Your task to perform on an android device: add a contact in the contacts app Image 0: 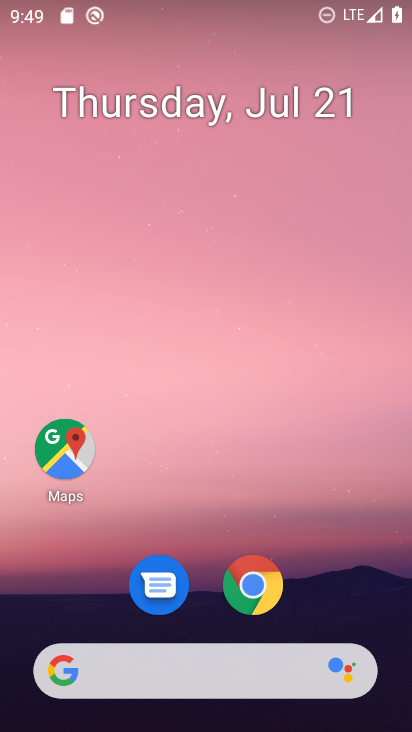
Step 0: drag from (332, 582) to (407, 62)
Your task to perform on an android device: add a contact in the contacts app Image 1: 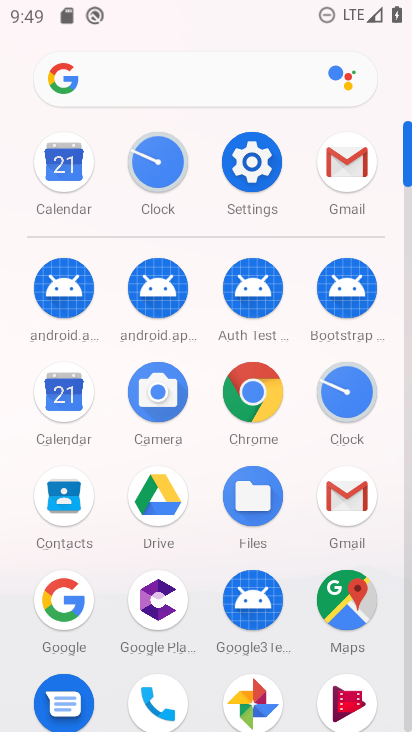
Step 1: click (57, 496)
Your task to perform on an android device: add a contact in the contacts app Image 2: 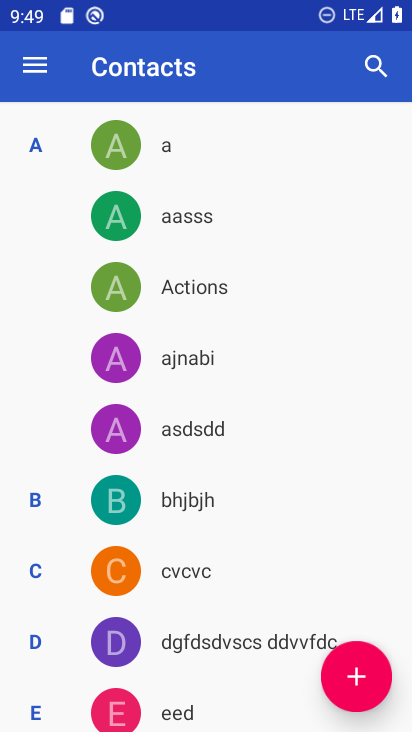
Step 2: click (356, 677)
Your task to perform on an android device: add a contact in the contacts app Image 3: 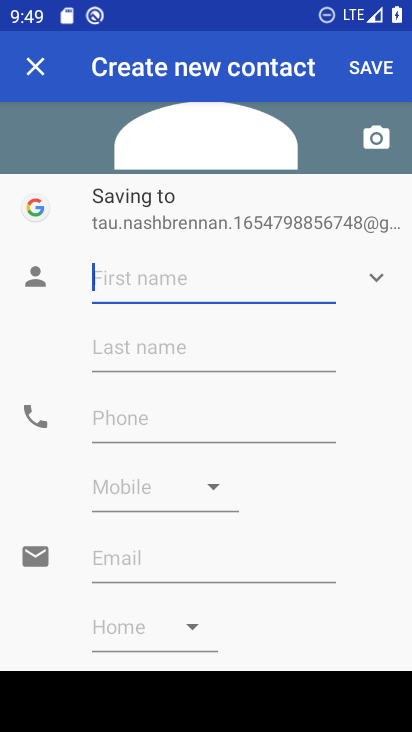
Step 3: type "Om Namo Shivay"
Your task to perform on an android device: add a contact in the contacts app Image 4: 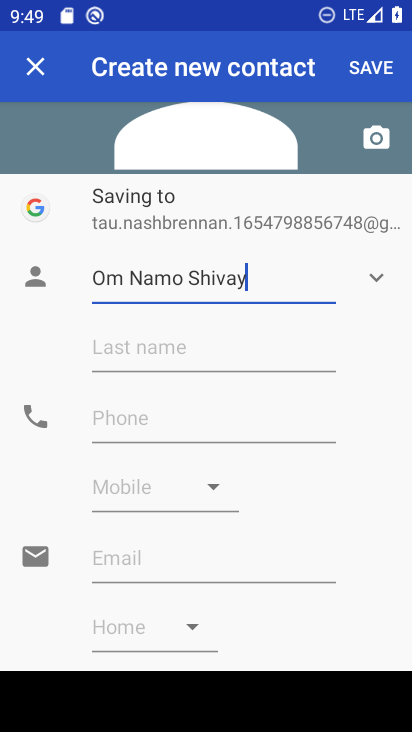
Step 4: click (265, 430)
Your task to perform on an android device: add a contact in the contacts app Image 5: 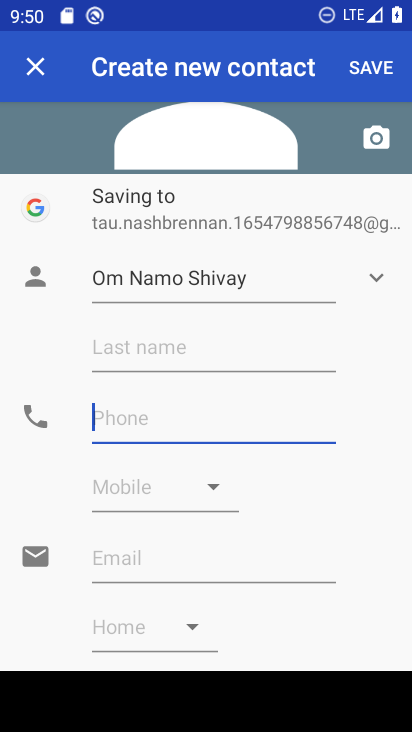
Step 5: type "+919990000001"
Your task to perform on an android device: add a contact in the contacts app Image 6: 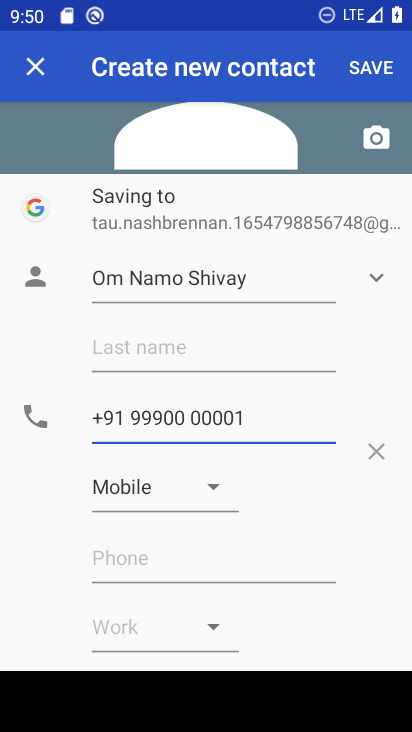
Step 6: click (377, 69)
Your task to perform on an android device: add a contact in the contacts app Image 7: 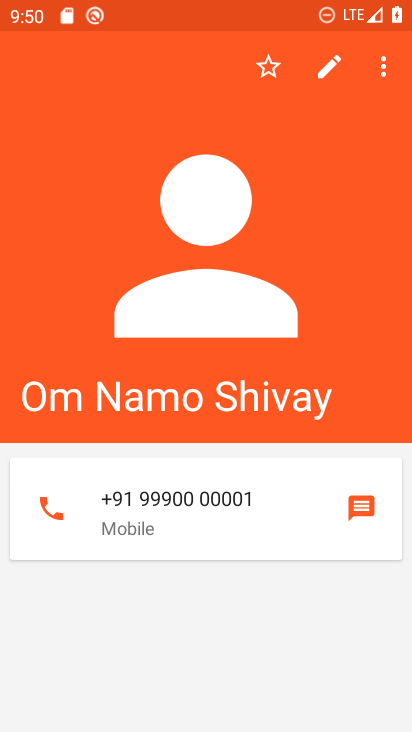
Step 7: task complete